Your task to perform on an android device: turn on sleep mode Image 0: 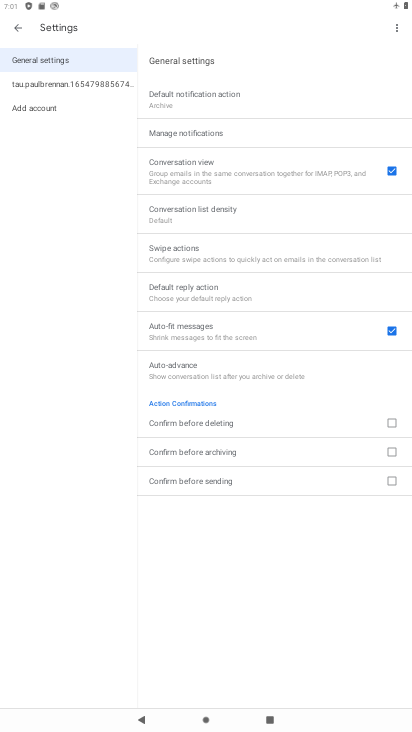
Step 0: press home button
Your task to perform on an android device: turn on sleep mode Image 1: 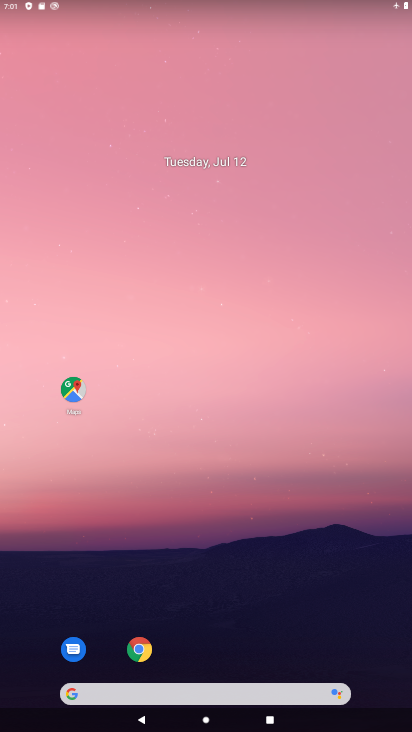
Step 1: drag from (217, 467) to (210, 167)
Your task to perform on an android device: turn on sleep mode Image 2: 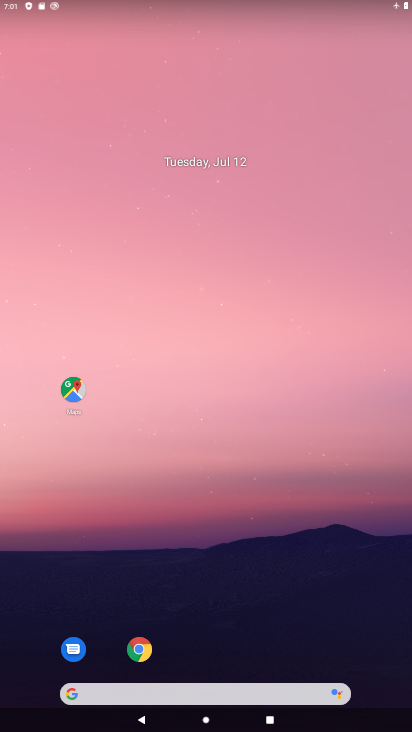
Step 2: drag from (208, 203) to (207, 125)
Your task to perform on an android device: turn on sleep mode Image 3: 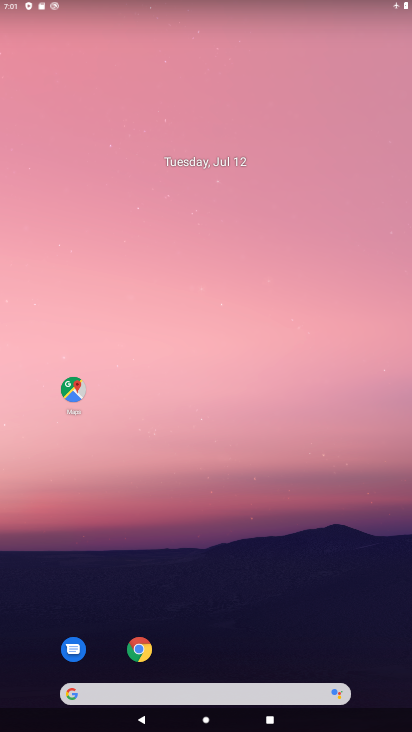
Step 3: drag from (197, 558) to (229, 83)
Your task to perform on an android device: turn on sleep mode Image 4: 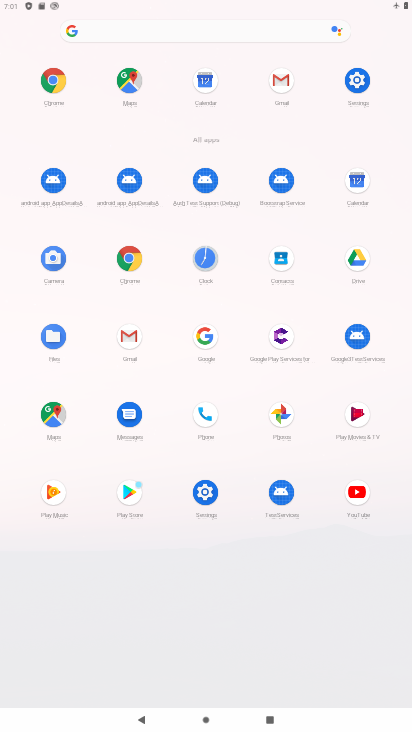
Step 4: click (355, 82)
Your task to perform on an android device: turn on sleep mode Image 5: 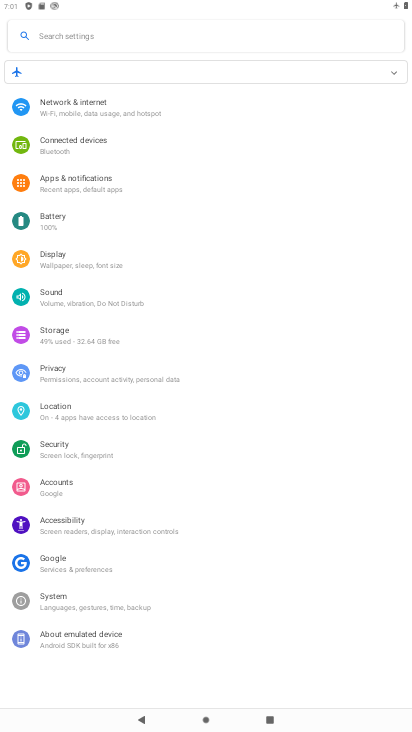
Step 5: task complete